Your task to perform on an android device: toggle show notifications on the lock screen Image 0: 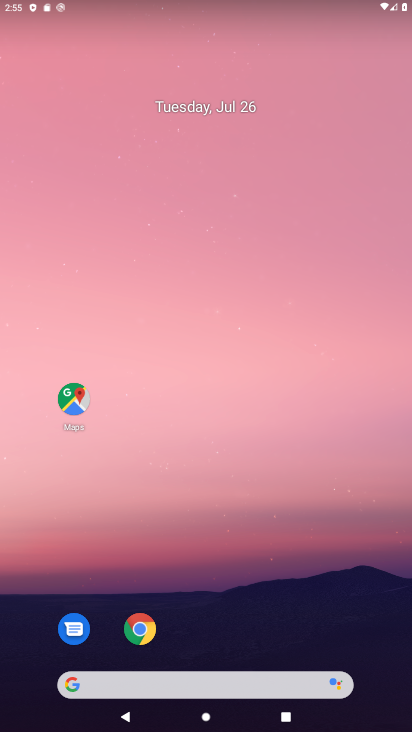
Step 0: drag from (222, 251) to (225, 84)
Your task to perform on an android device: toggle show notifications on the lock screen Image 1: 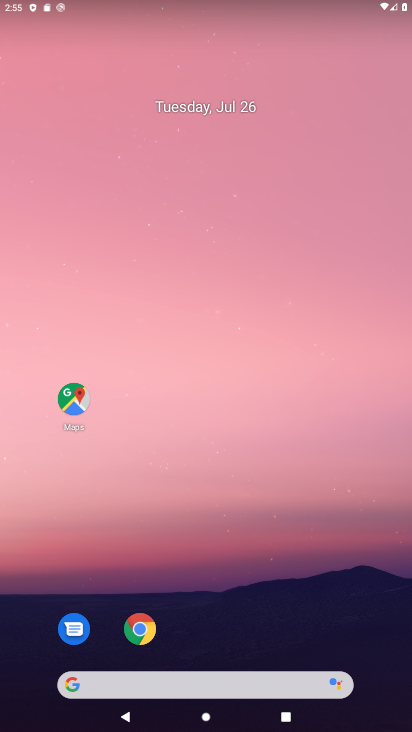
Step 1: drag from (226, 727) to (242, 24)
Your task to perform on an android device: toggle show notifications on the lock screen Image 2: 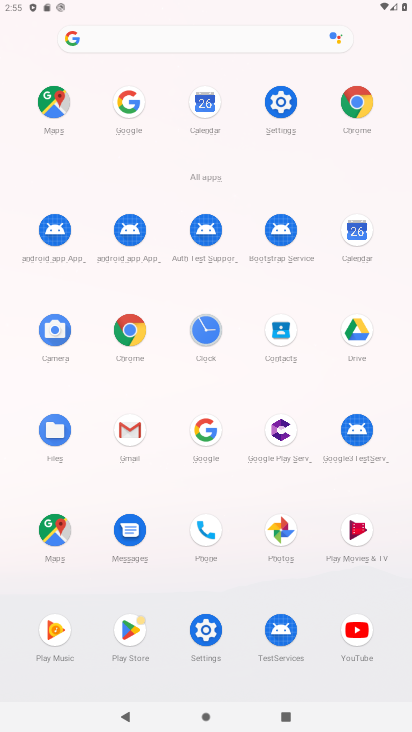
Step 2: click (283, 104)
Your task to perform on an android device: toggle show notifications on the lock screen Image 3: 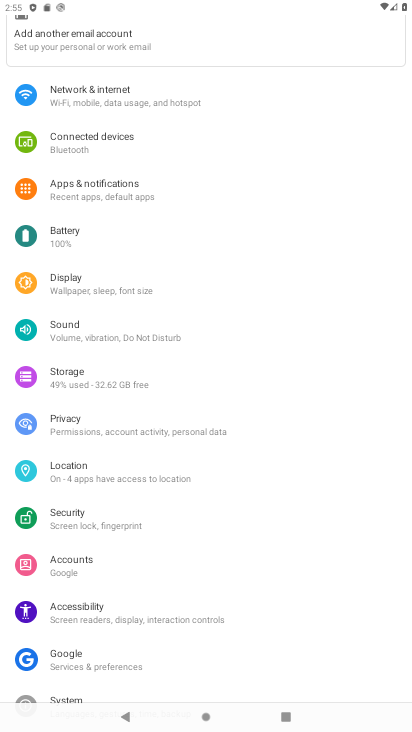
Step 3: click (103, 183)
Your task to perform on an android device: toggle show notifications on the lock screen Image 4: 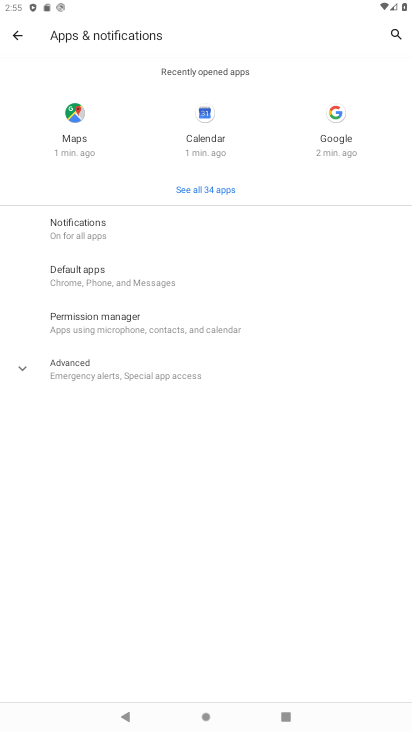
Step 4: click (72, 233)
Your task to perform on an android device: toggle show notifications on the lock screen Image 5: 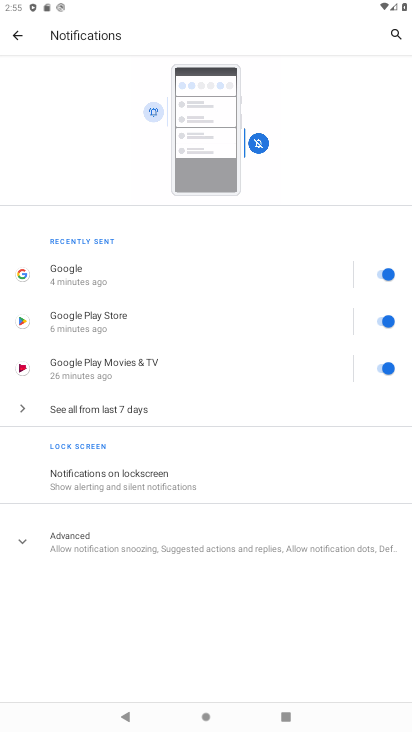
Step 5: click (105, 472)
Your task to perform on an android device: toggle show notifications on the lock screen Image 6: 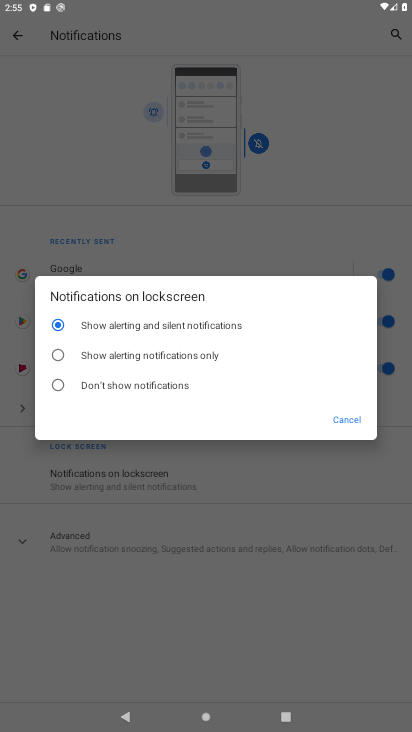
Step 6: click (56, 358)
Your task to perform on an android device: toggle show notifications on the lock screen Image 7: 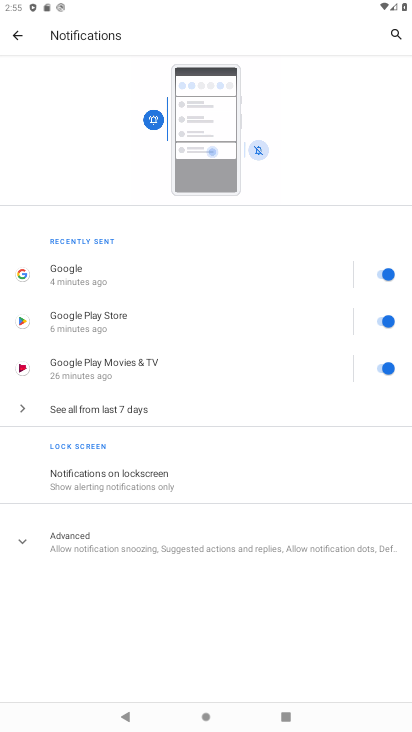
Step 7: task complete